Your task to perform on an android device: check storage Image 0: 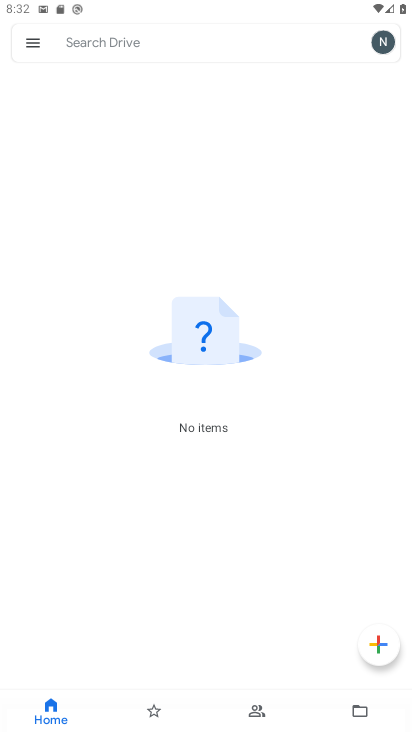
Step 0: press home button
Your task to perform on an android device: check storage Image 1: 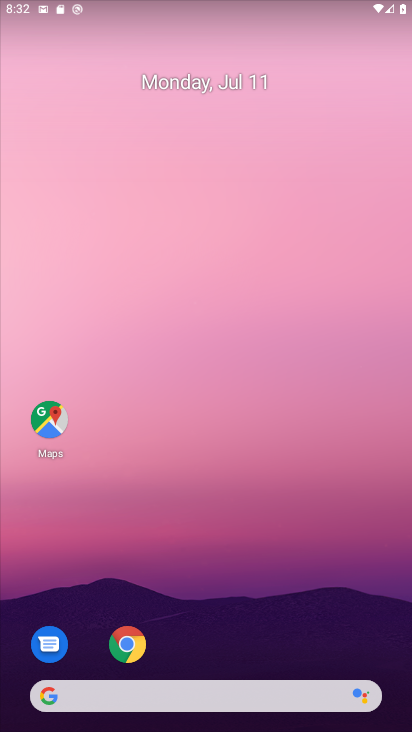
Step 1: drag from (237, 581) to (265, 346)
Your task to perform on an android device: check storage Image 2: 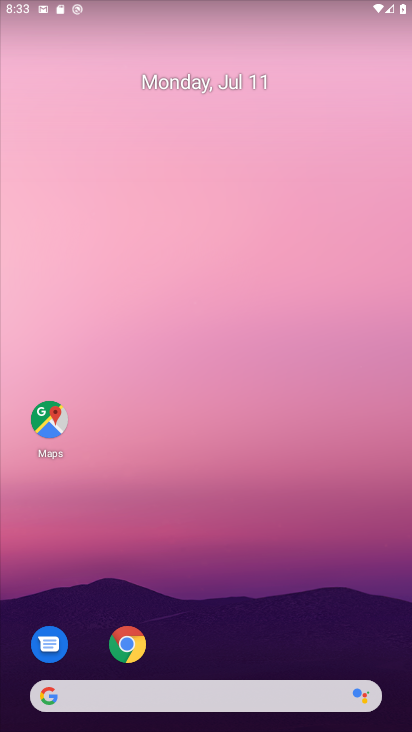
Step 2: drag from (222, 676) to (283, 187)
Your task to perform on an android device: check storage Image 3: 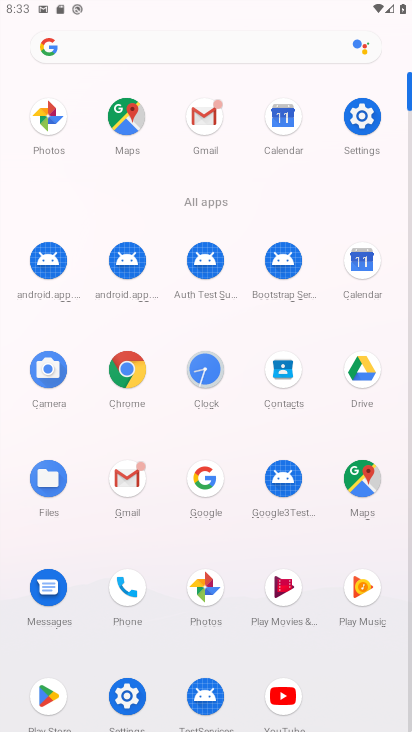
Step 3: click (361, 115)
Your task to perform on an android device: check storage Image 4: 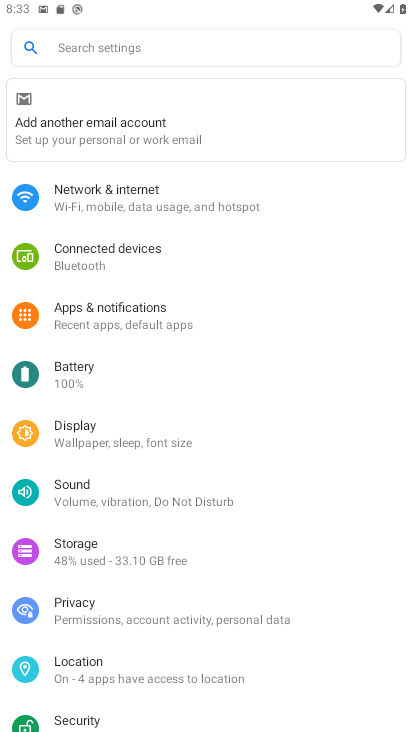
Step 4: click (80, 561)
Your task to perform on an android device: check storage Image 5: 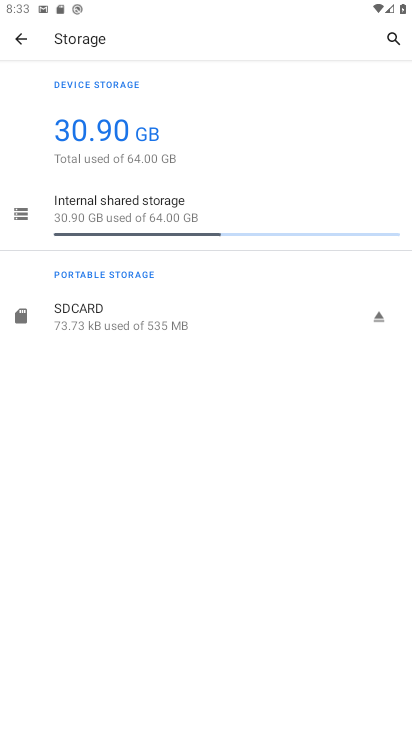
Step 5: task complete